Your task to perform on an android device: find which apps use the phone's location Image 0: 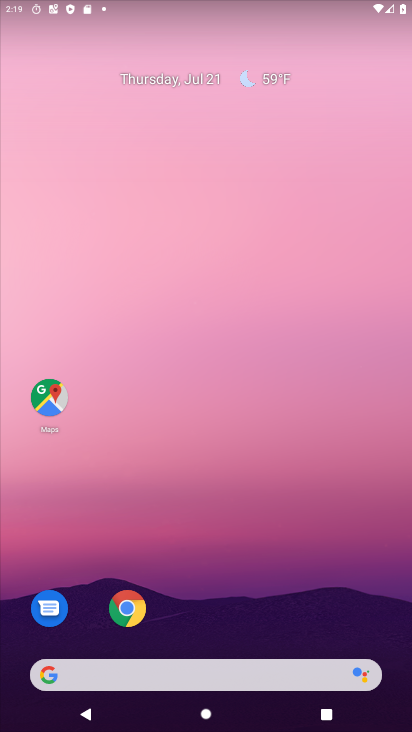
Step 0: drag from (264, 602) to (326, 289)
Your task to perform on an android device: find which apps use the phone's location Image 1: 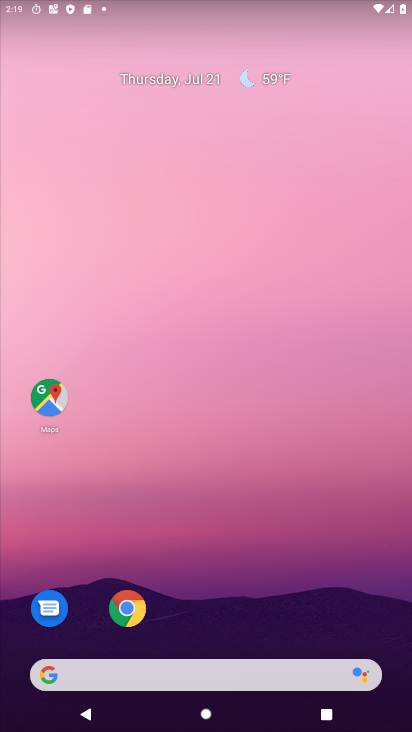
Step 1: drag from (305, 622) to (313, 43)
Your task to perform on an android device: find which apps use the phone's location Image 2: 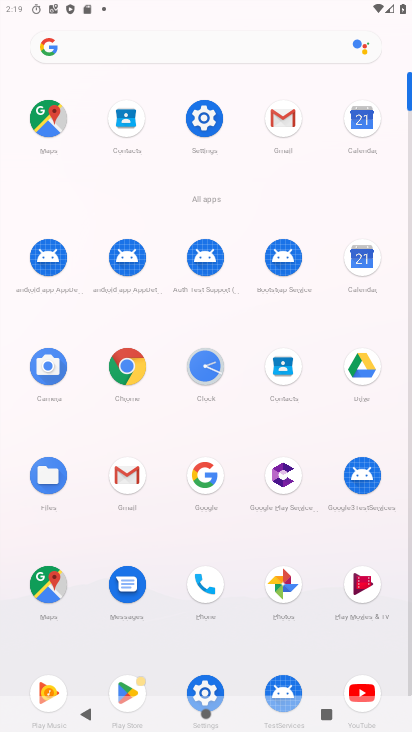
Step 2: click (206, 119)
Your task to perform on an android device: find which apps use the phone's location Image 3: 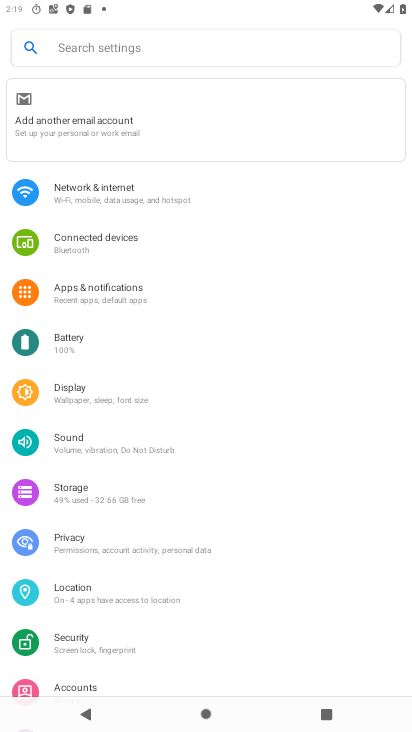
Step 3: click (54, 583)
Your task to perform on an android device: find which apps use the phone's location Image 4: 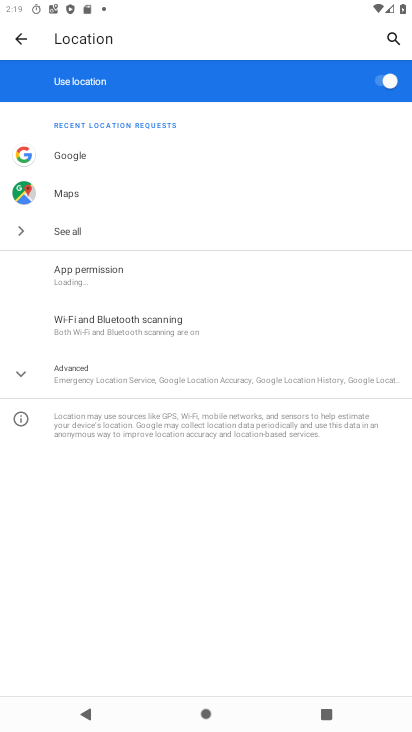
Step 4: click (228, 277)
Your task to perform on an android device: find which apps use the phone's location Image 5: 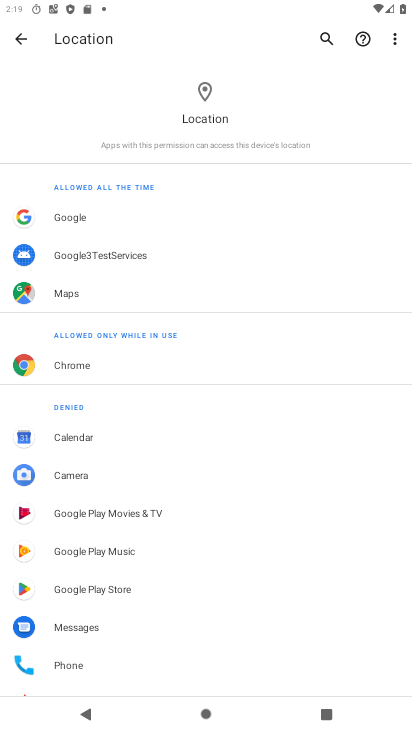
Step 5: task complete